Your task to perform on an android device: Open privacy settings Image 0: 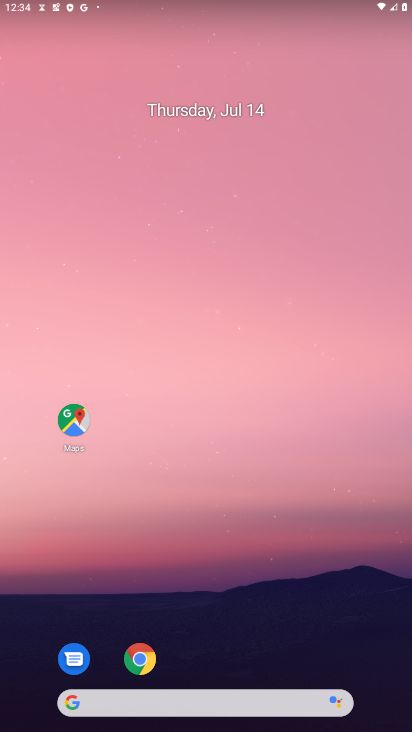
Step 0: drag from (15, 710) to (356, 177)
Your task to perform on an android device: Open privacy settings Image 1: 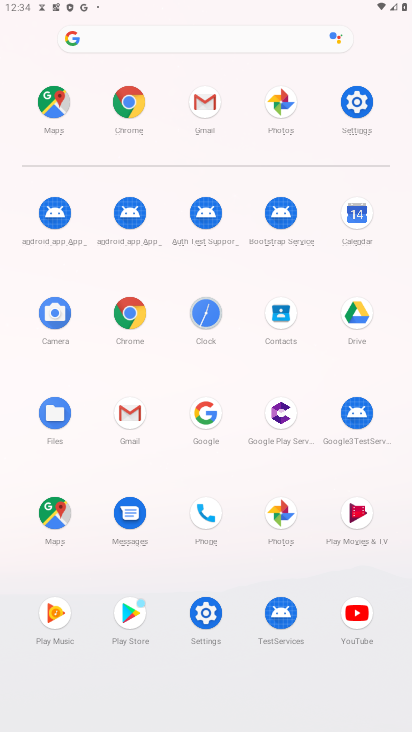
Step 1: click (198, 607)
Your task to perform on an android device: Open privacy settings Image 2: 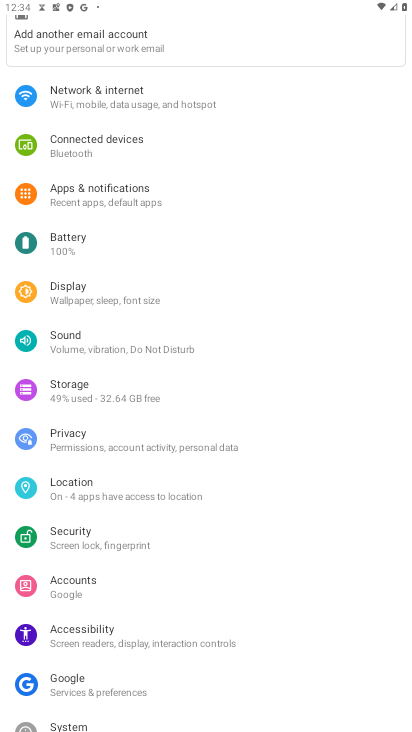
Step 2: click (82, 446)
Your task to perform on an android device: Open privacy settings Image 3: 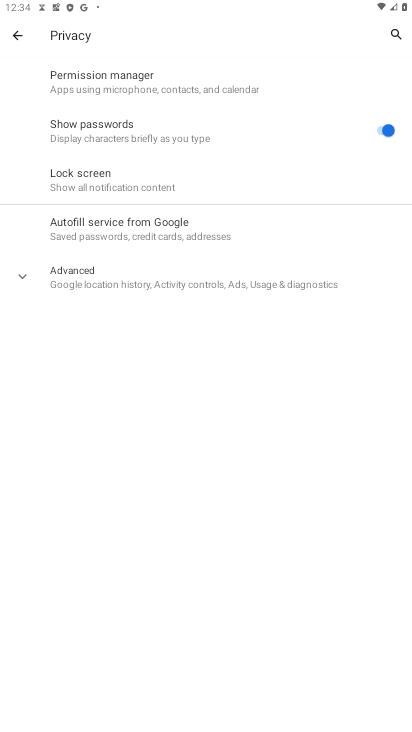
Step 3: task complete